Your task to perform on an android device: change timer sound Image 0: 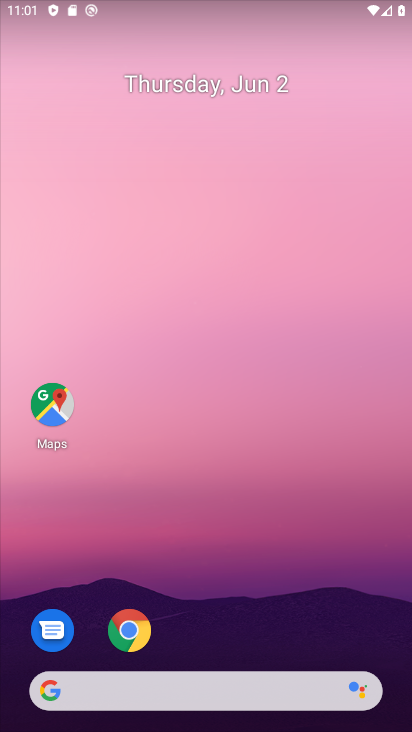
Step 0: click (283, 198)
Your task to perform on an android device: change timer sound Image 1: 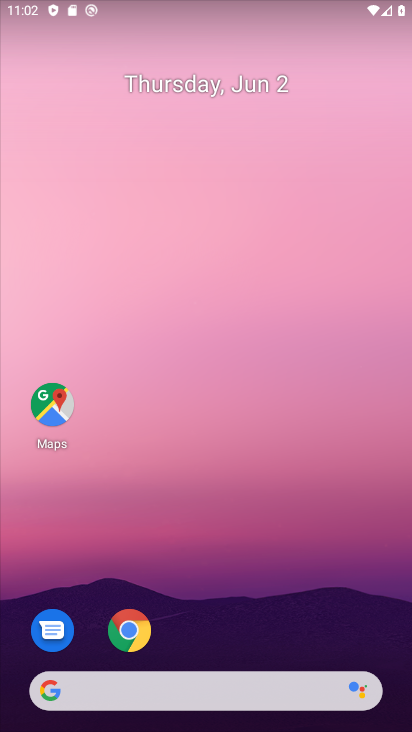
Step 1: drag from (190, 686) to (321, 186)
Your task to perform on an android device: change timer sound Image 2: 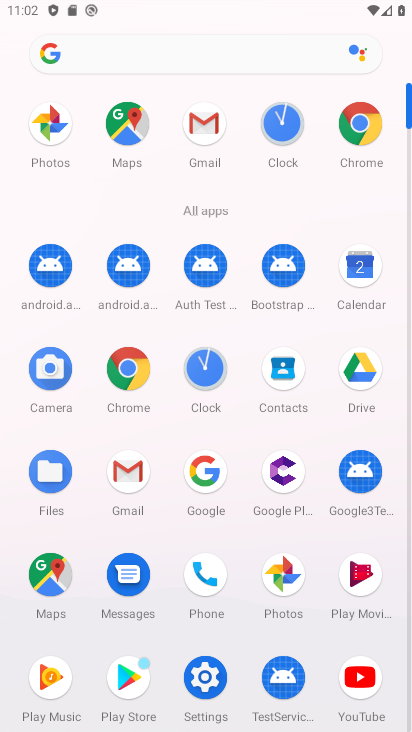
Step 2: click (198, 376)
Your task to perform on an android device: change timer sound Image 3: 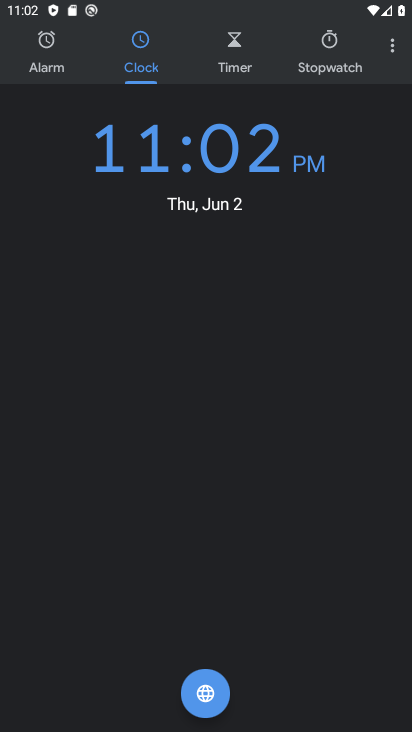
Step 3: click (395, 40)
Your task to perform on an android device: change timer sound Image 4: 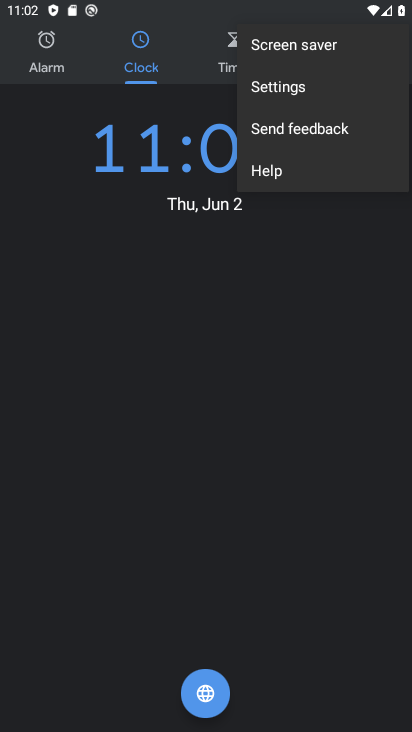
Step 4: click (354, 85)
Your task to perform on an android device: change timer sound Image 5: 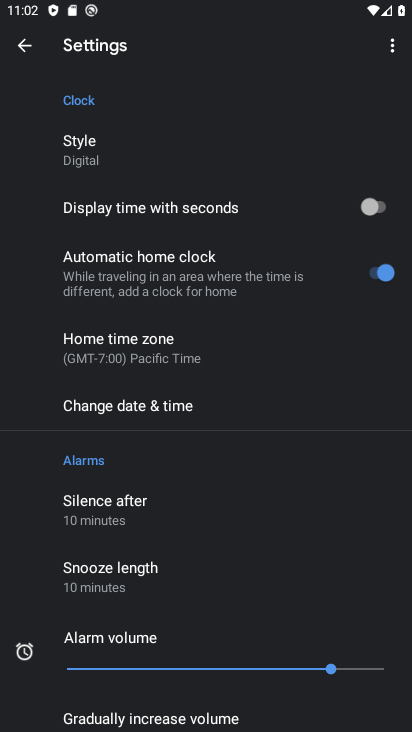
Step 5: drag from (183, 572) to (307, 137)
Your task to perform on an android device: change timer sound Image 6: 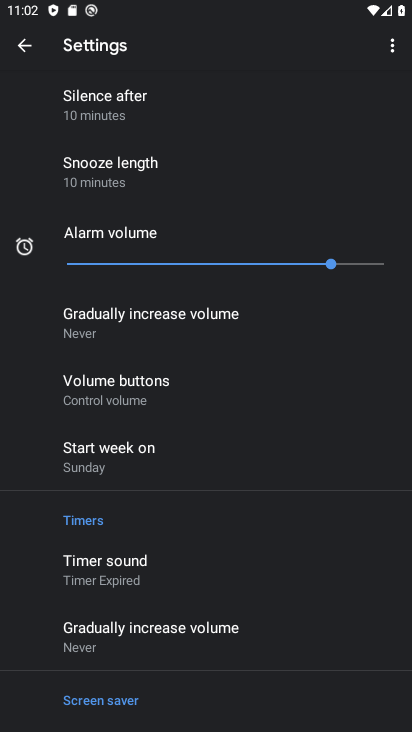
Step 6: drag from (168, 605) to (275, 203)
Your task to perform on an android device: change timer sound Image 7: 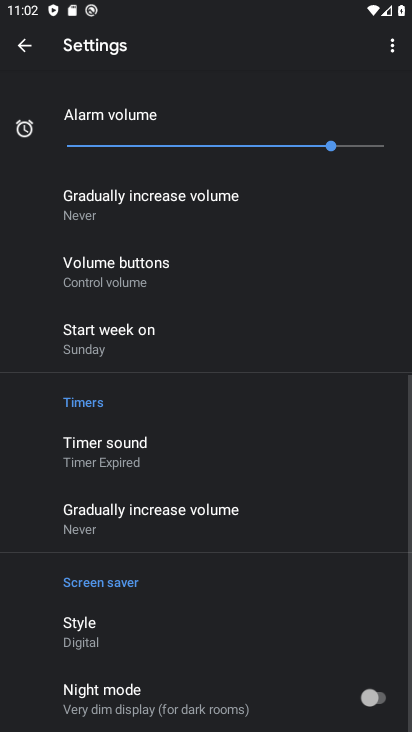
Step 7: click (151, 448)
Your task to perform on an android device: change timer sound Image 8: 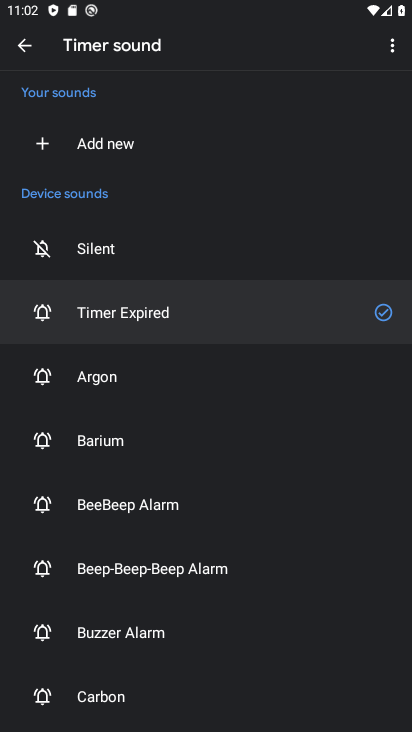
Step 8: click (202, 640)
Your task to perform on an android device: change timer sound Image 9: 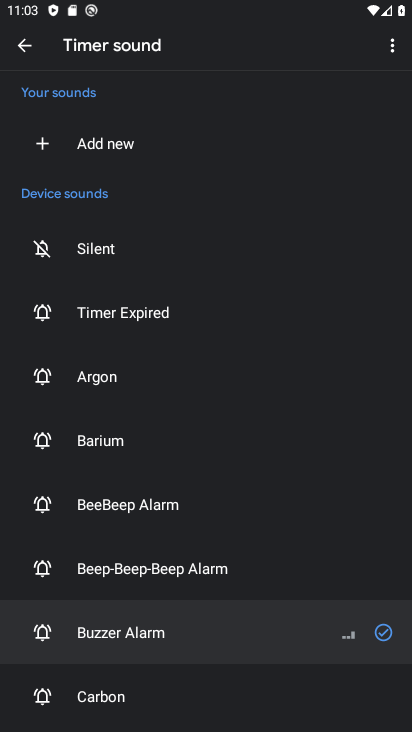
Step 9: task complete